Your task to perform on an android device: turn off data saver in the chrome app Image 0: 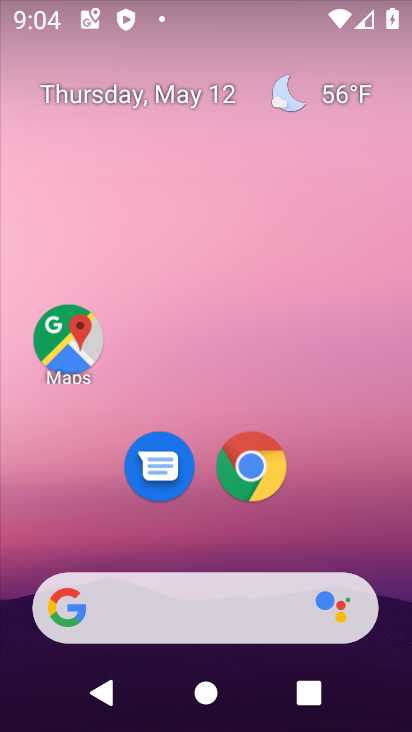
Step 0: click (251, 489)
Your task to perform on an android device: turn off data saver in the chrome app Image 1: 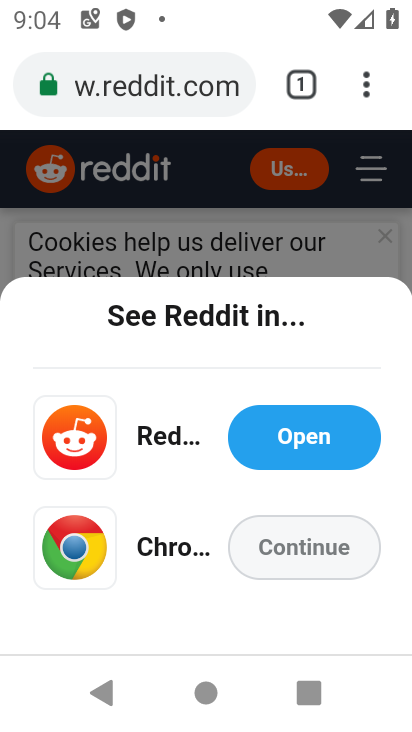
Step 1: drag from (361, 91) to (198, 518)
Your task to perform on an android device: turn off data saver in the chrome app Image 2: 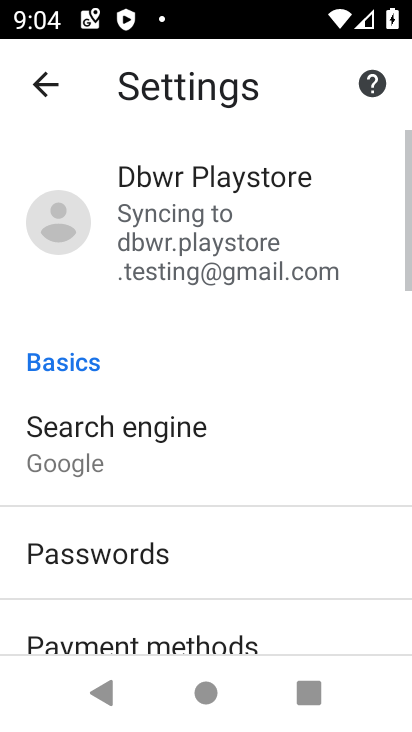
Step 2: drag from (256, 564) to (267, 270)
Your task to perform on an android device: turn off data saver in the chrome app Image 3: 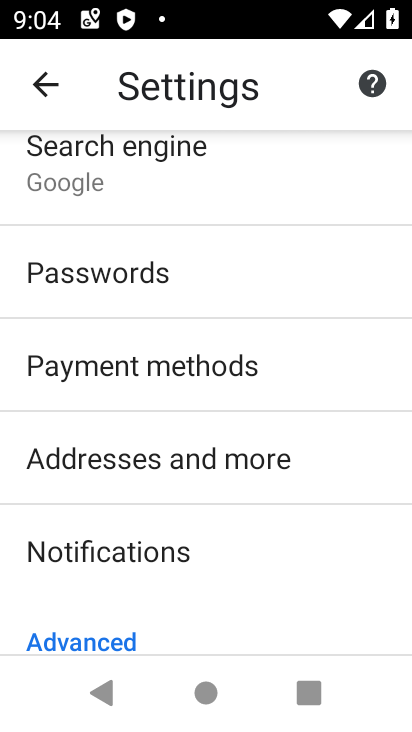
Step 3: drag from (215, 562) to (223, 245)
Your task to perform on an android device: turn off data saver in the chrome app Image 4: 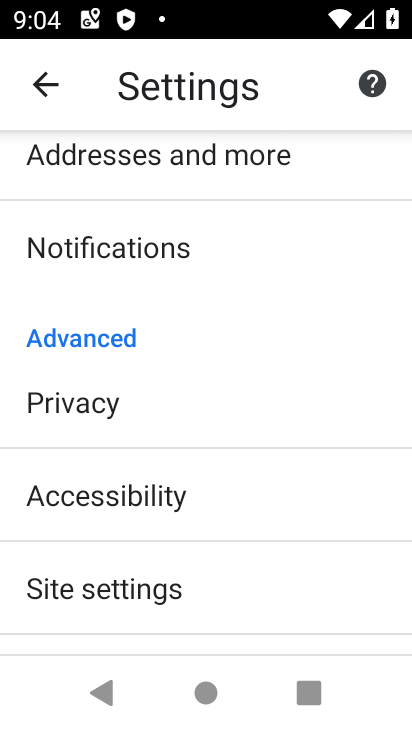
Step 4: drag from (209, 611) to (181, 209)
Your task to perform on an android device: turn off data saver in the chrome app Image 5: 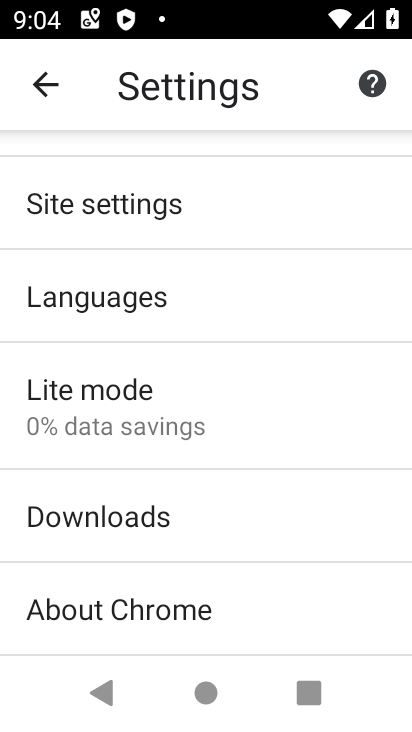
Step 5: click (134, 422)
Your task to perform on an android device: turn off data saver in the chrome app Image 6: 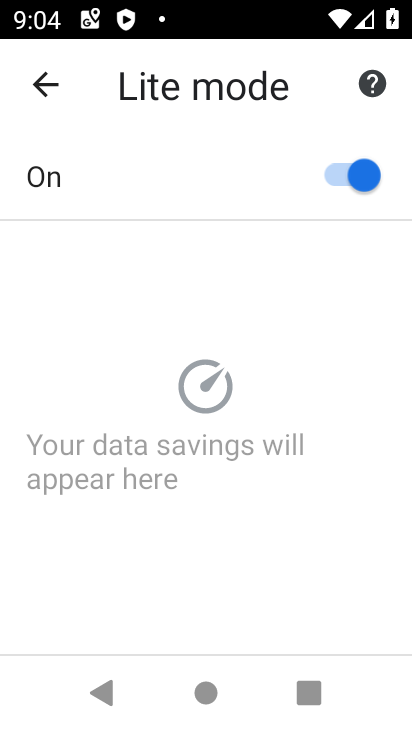
Step 6: click (368, 176)
Your task to perform on an android device: turn off data saver in the chrome app Image 7: 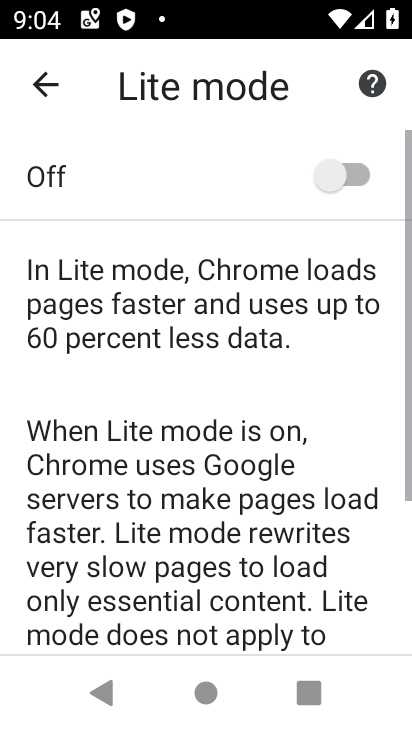
Step 7: task complete